Your task to perform on an android device: Open Yahoo.com Image 0: 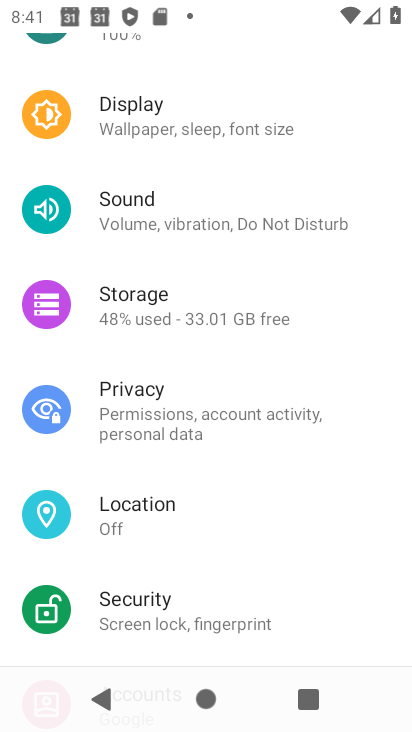
Step 0: press back button
Your task to perform on an android device: Open Yahoo.com Image 1: 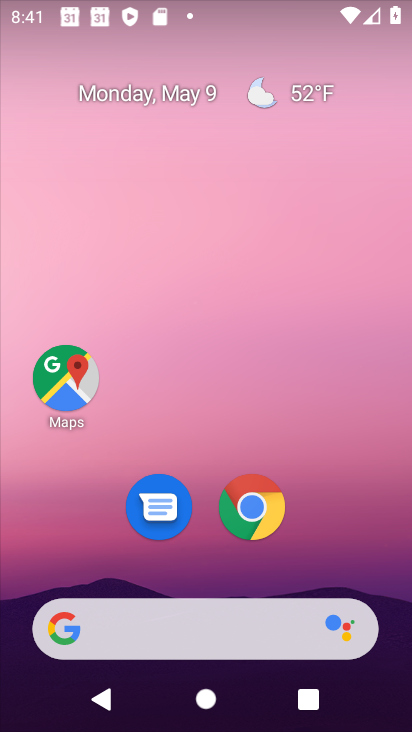
Step 1: click (254, 507)
Your task to perform on an android device: Open Yahoo.com Image 2: 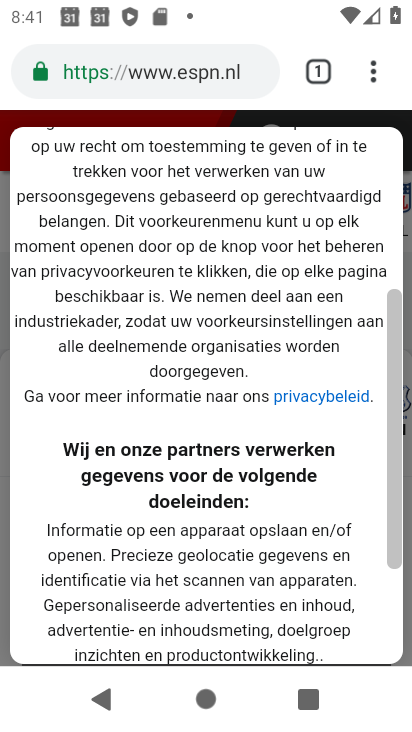
Step 2: click (254, 77)
Your task to perform on an android device: Open Yahoo.com Image 3: 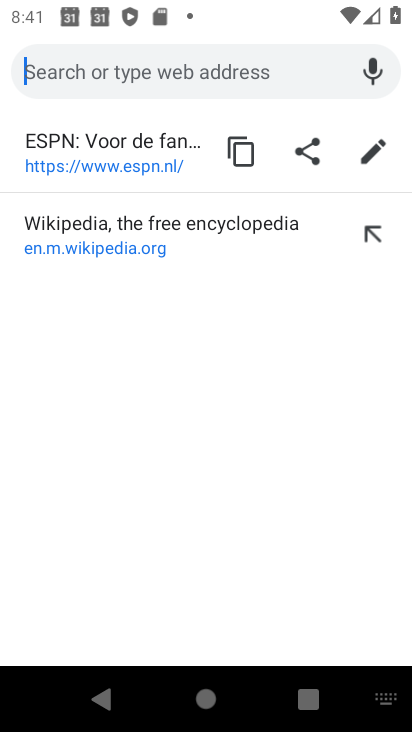
Step 3: type "Yahoo.com"
Your task to perform on an android device: Open Yahoo.com Image 4: 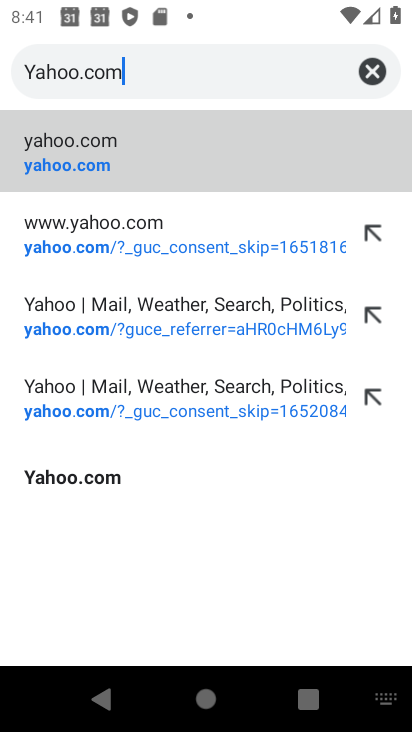
Step 4: type ""
Your task to perform on an android device: Open Yahoo.com Image 5: 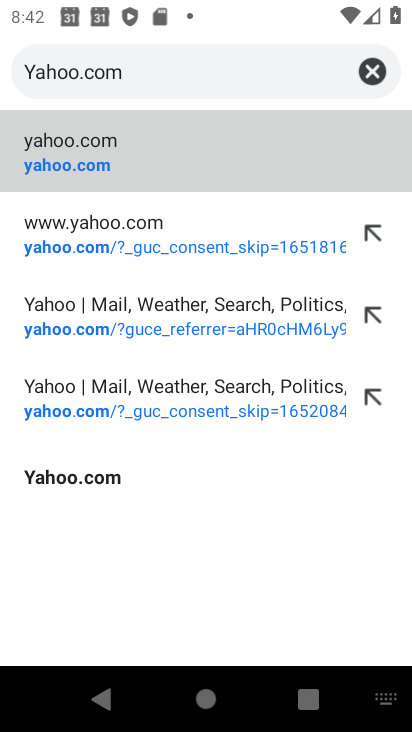
Step 5: click (87, 477)
Your task to perform on an android device: Open Yahoo.com Image 6: 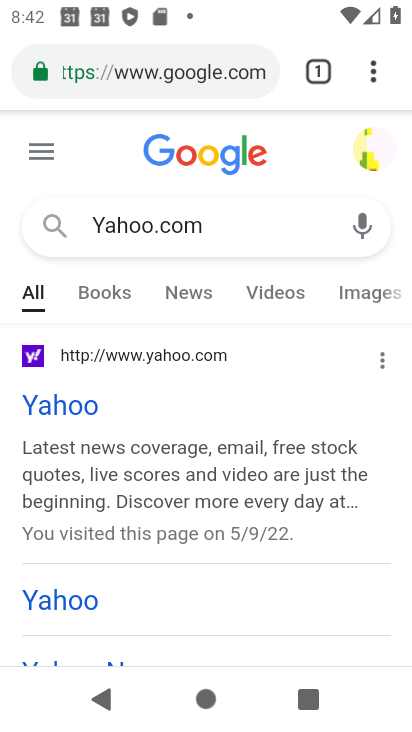
Step 6: click (39, 399)
Your task to perform on an android device: Open Yahoo.com Image 7: 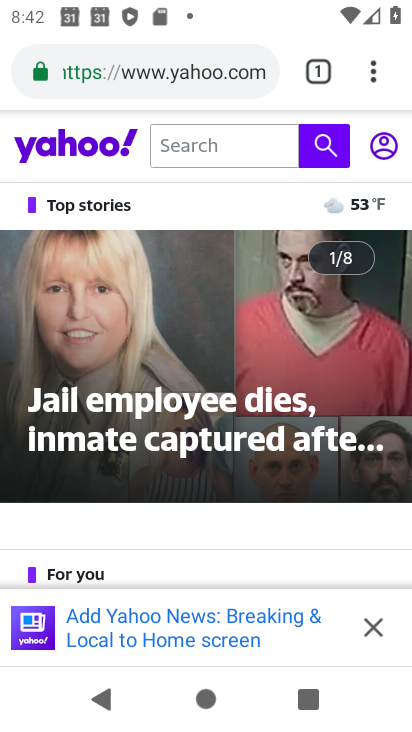
Step 7: task complete